Your task to perform on an android device: open a new tab in the chrome app Image 0: 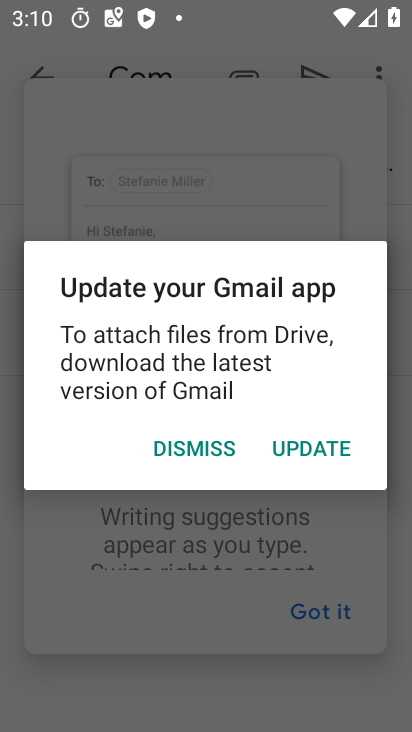
Step 0: click (189, 453)
Your task to perform on an android device: open a new tab in the chrome app Image 1: 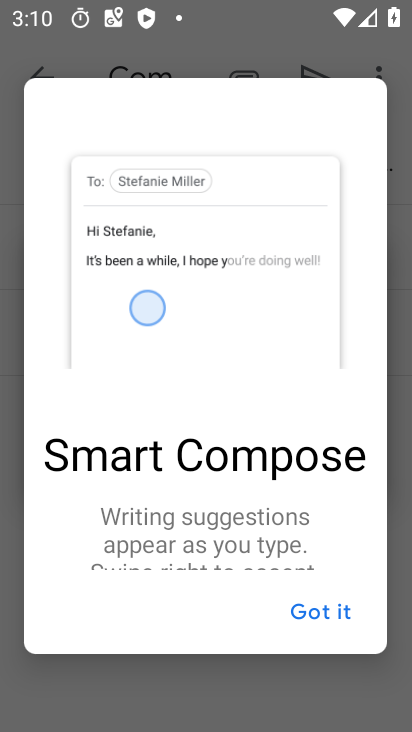
Step 1: press home button
Your task to perform on an android device: open a new tab in the chrome app Image 2: 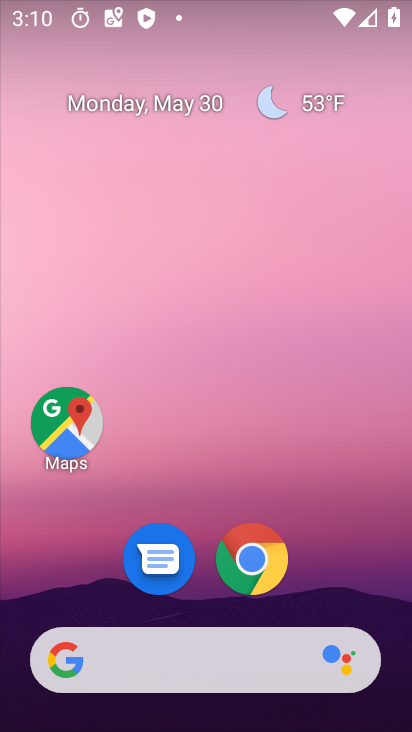
Step 2: drag from (161, 541) to (157, 217)
Your task to perform on an android device: open a new tab in the chrome app Image 3: 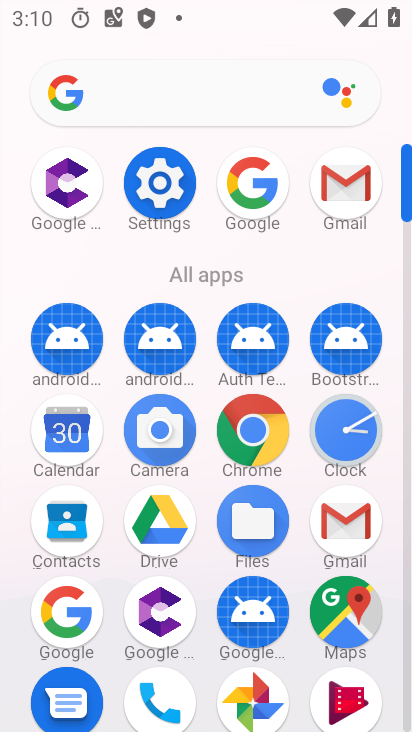
Step 3: click (258, 443)
Your task to perform on an android device: open a new tab in the chrome app Image 4: 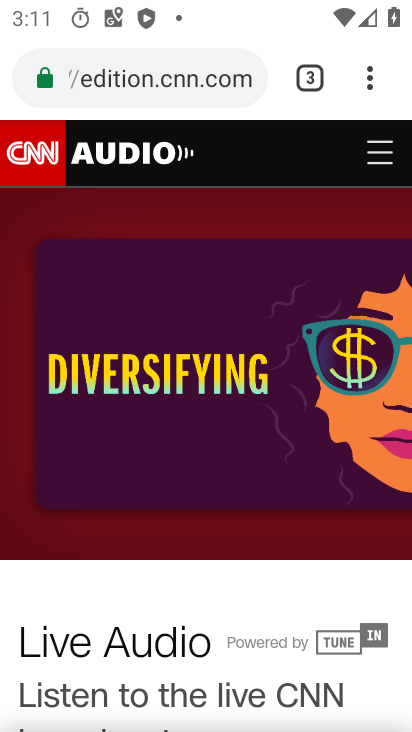
Step 4: task complete